Your task to perform on an android device: toggle notification dots Image 0: 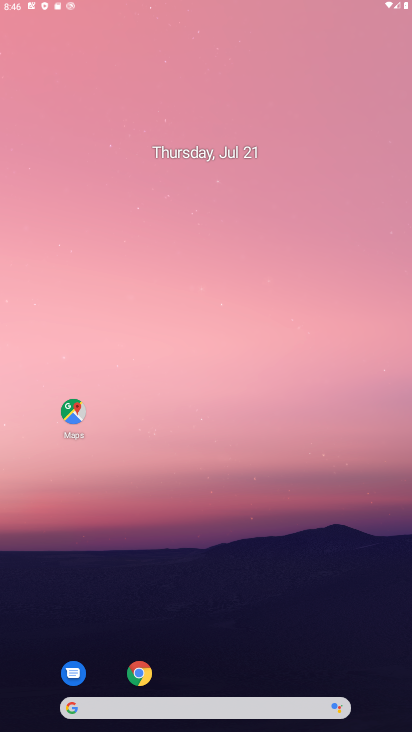
Step 0: press home button
Your task to perform on an android device: toggle notification dots Image 1: 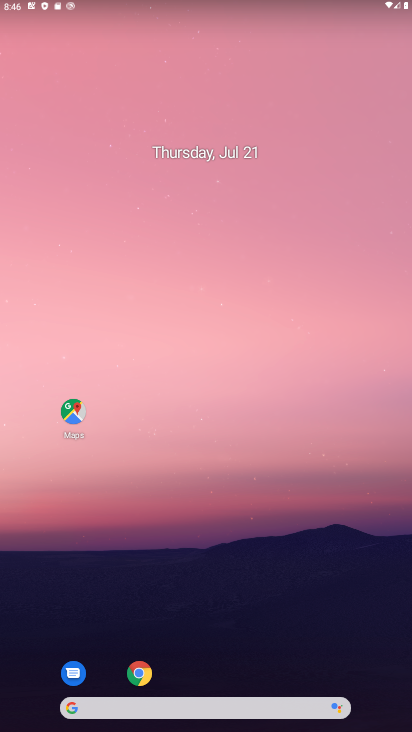
Step 1: drag from (207, 729) to (207, 177)
Your task to perform on an android device: toggle notification dots Image 2: 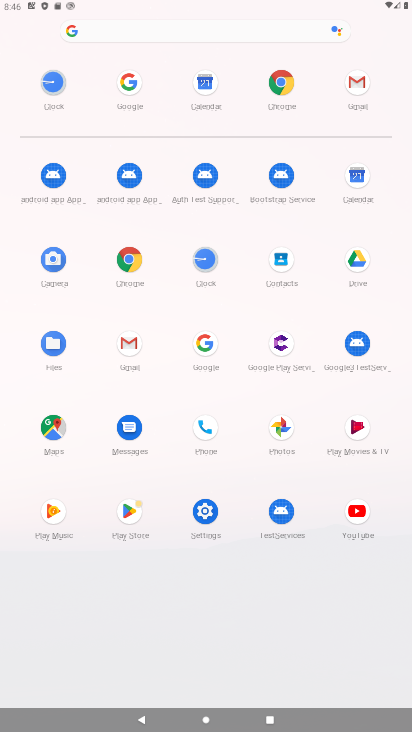
Step 2: click (211, 514)
Your task to perform on an android device: toggle notification dots Image 3: 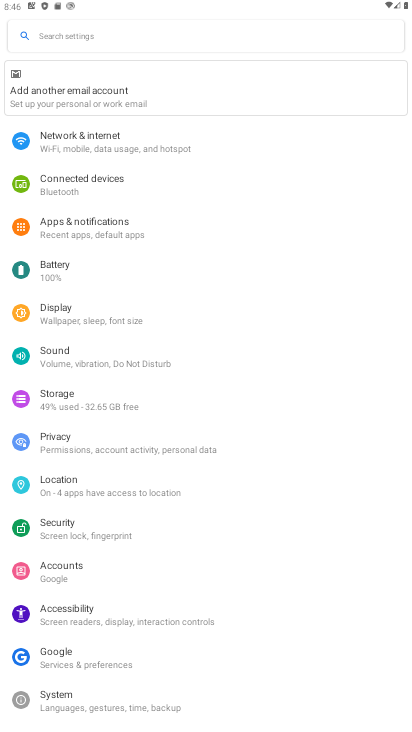
Step 3: click (86, 229)
Your task to perform on an android device: toggle notification dots Image 4: 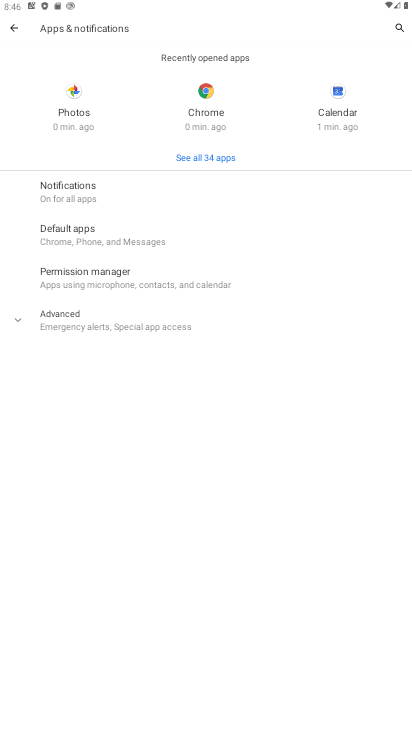
Step 4: click (77, 187)
Your task to perform on an android device: toggle notification dots Image 5: 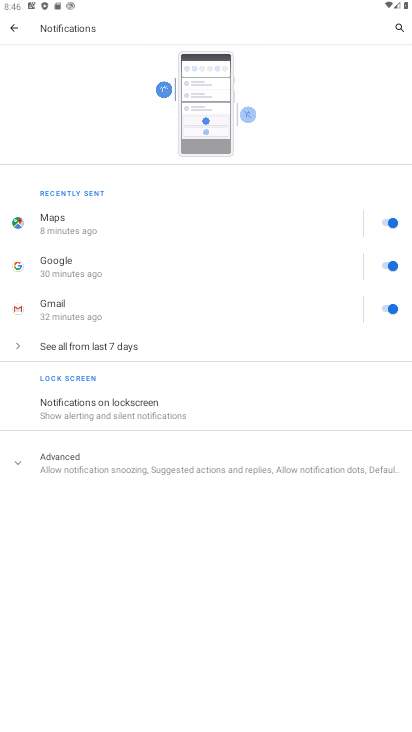
Step 5: click (106, 461)
Your task to perform on an android device: toggle notification dots Image 6: 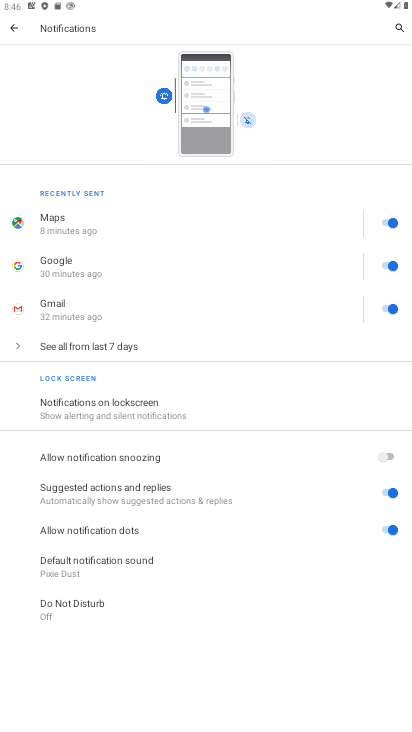
Step 6: click (393, 526)
Your task to perform on an android device: toggle notification dots Image 7: 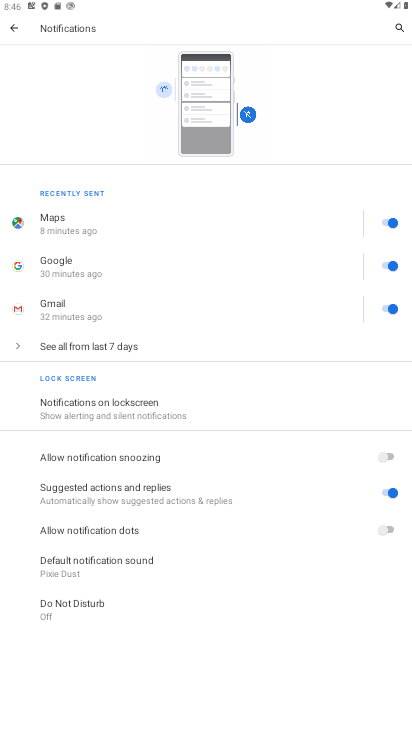
Step 7: task complete